Your task to perform on an android device: turn off notifications settings in the gmail app Image 0: 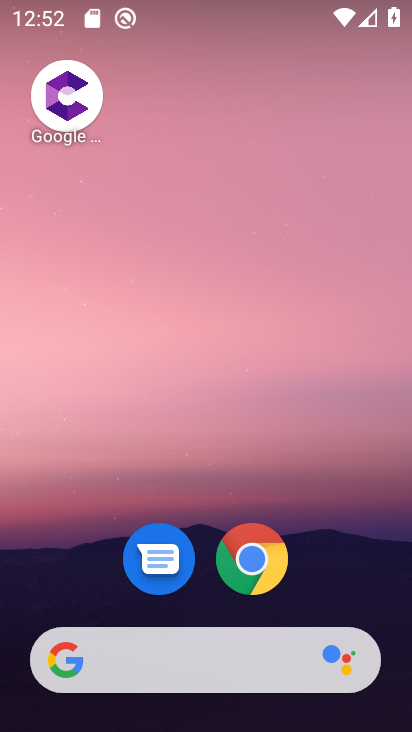
Step 0: drag from (206, 380) to (209, 29)
Your task to perform on an android device: turn off notifications settings in the gmail app Image 1: 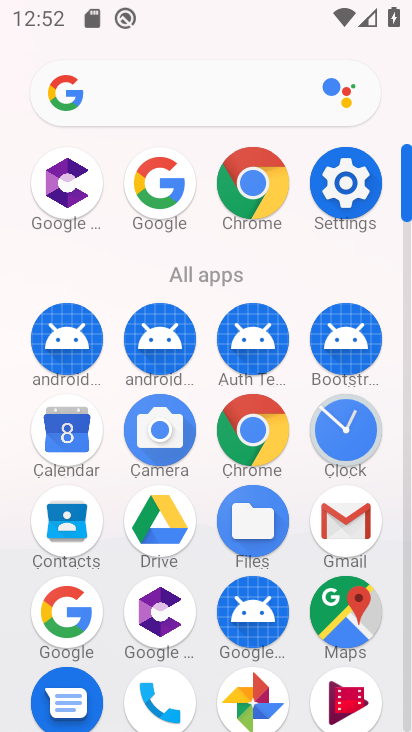
Step 1: click (357, 512)
Your task to perform on an android device: turn off notifications settings in the gmail app Image 2: 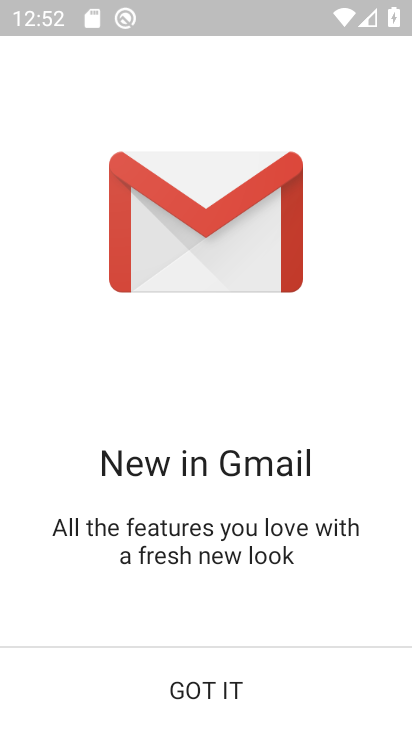
Step 2: click (248, 700)
Your task to perform on an android device: turn off notifications settings in the gmail app Image 3: 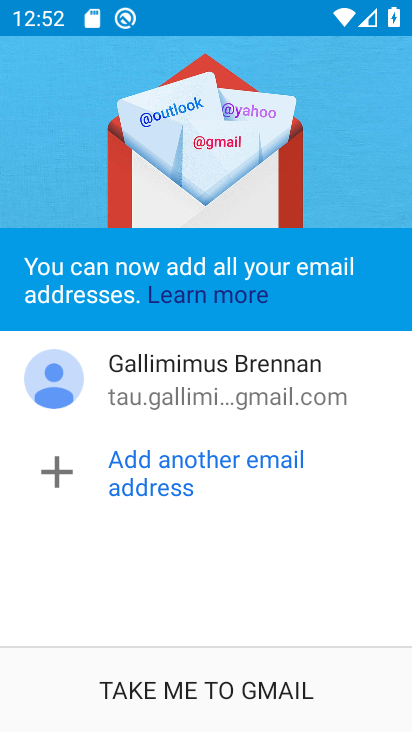
Step 3: click (248, 700)
Your task to perform on an android device: turn off notifications settings in the gmail app Image 4: 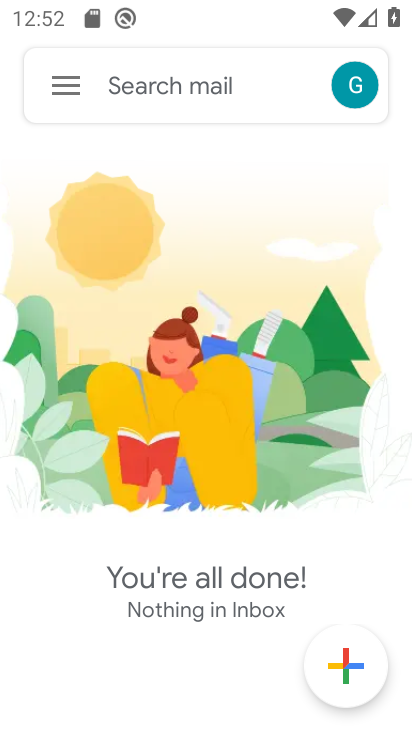
Step 4: click (64, 81)
Your task to perform on an android device: turn off notifications settings in the gmail app Image 5: 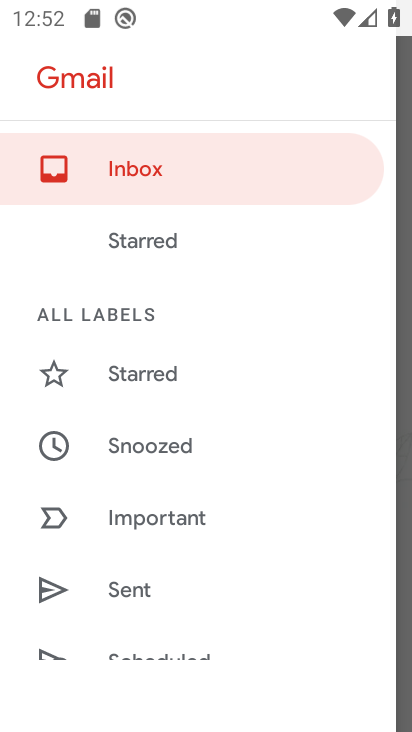
Step 5: drag from (199, 555) to (150, 83)
Your task to perform on an android device: turn off notifications settings in the gmail app Image 6: 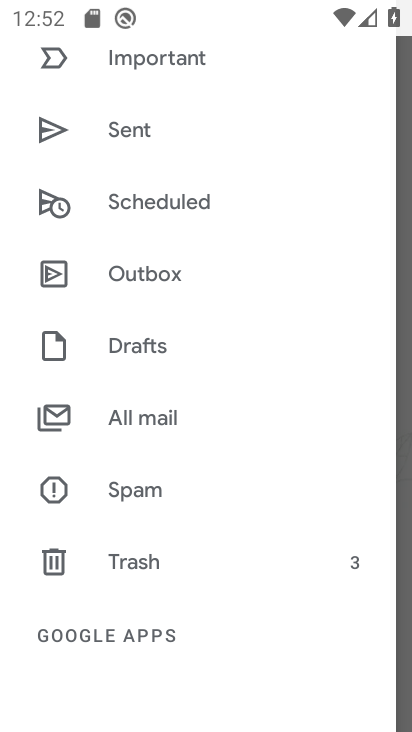
Step 6: drag from (190, 562) to (203, 173)
Your task to perform on an android device: turn off notifications settings in the gmail app Image 7: 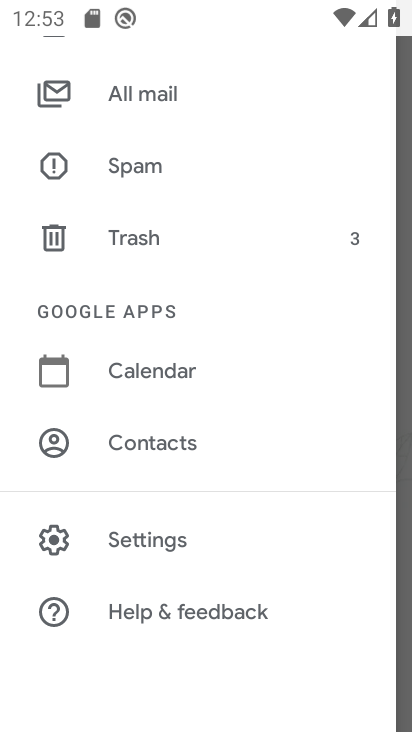
Step 7: click (141, 522)
Your task to perform on an android device: turn off notifications settings in the gmail app Image 8: 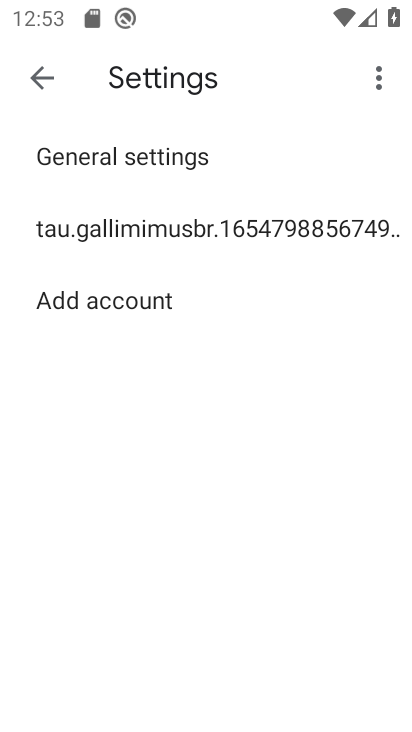
Step 8: click (145, 179)
Your task to perform on an android device: turn off notifications settings in the gmail app Image 9: 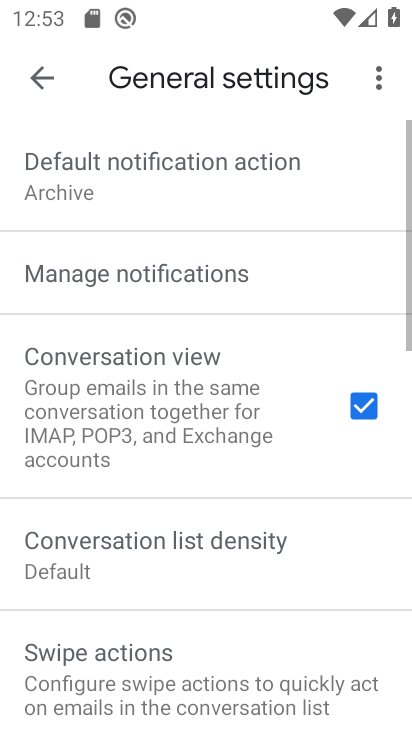
Step 9: click (166, 267)
Your task to perform on an android device: turn off notifications settings in the gmail app Image 10: 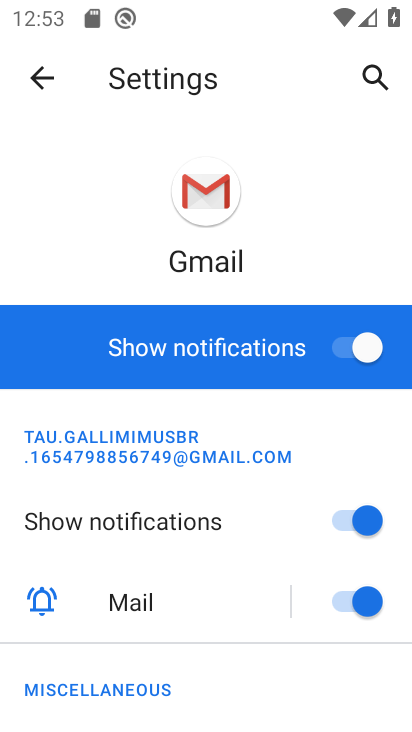
Step 10: click (346, 341)
Your task to perform on an android device: turn off notifications settings in the gmail app Image 11: 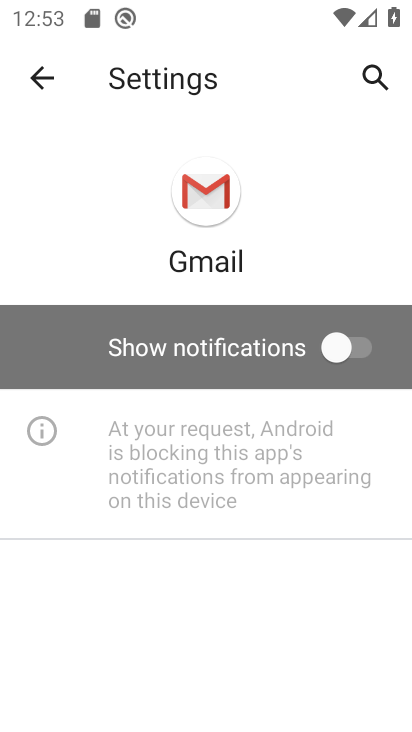
Step 11: task complete